Your task to perform on an android device: allow cookies in the chrome app Image 0: 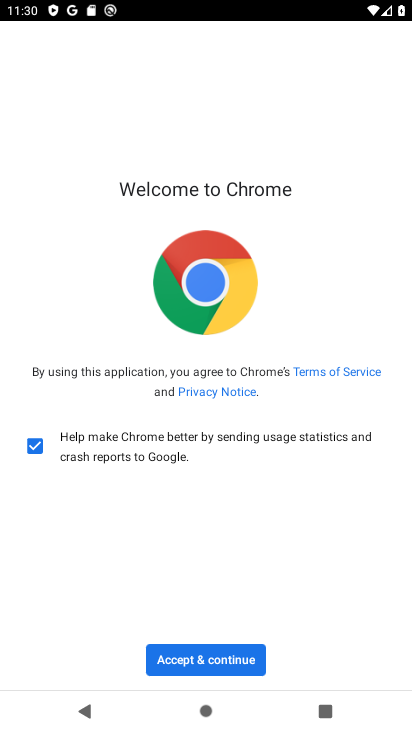
Step 0: press home button
Your task to perform on an android device: allow cookies in the chrome app Image 1: 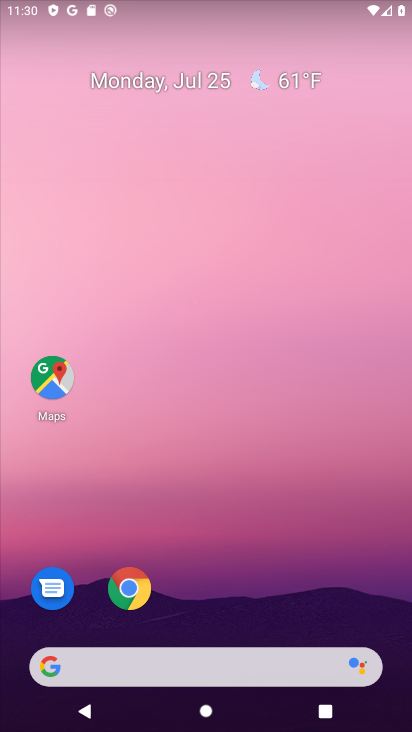
Step 1: click (127, 583)
Your task to perform on an android device: allow cookies in the chrome app Image 2: 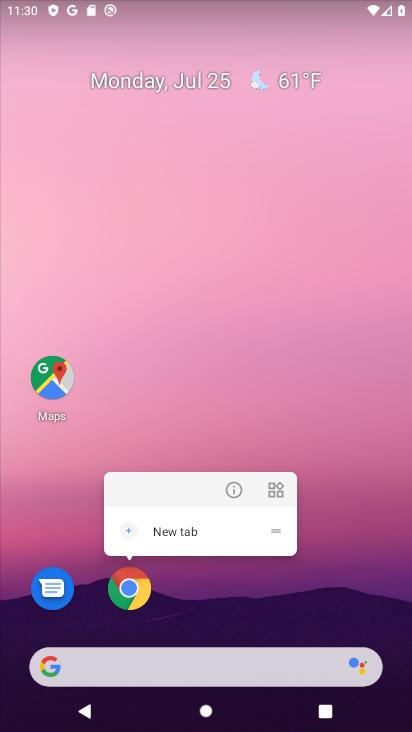
Step 2: click (126, 583)
Your task to perform on an android device: allow cookies in the chrome app Image 3: 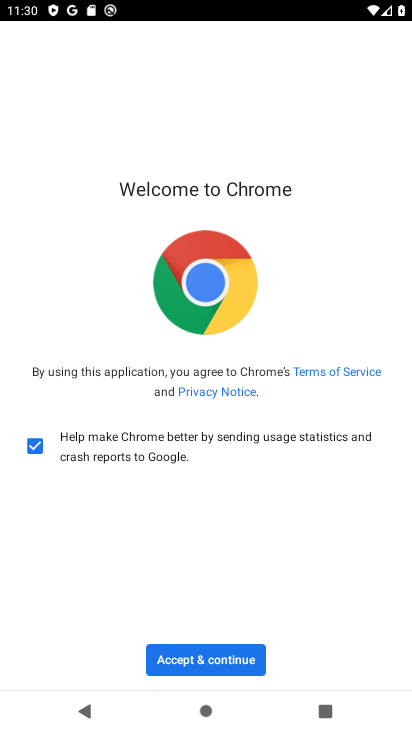
Step 3: click (198, 655)
Your task to perform on an android device: allow cookies in the chrome app Image 4: 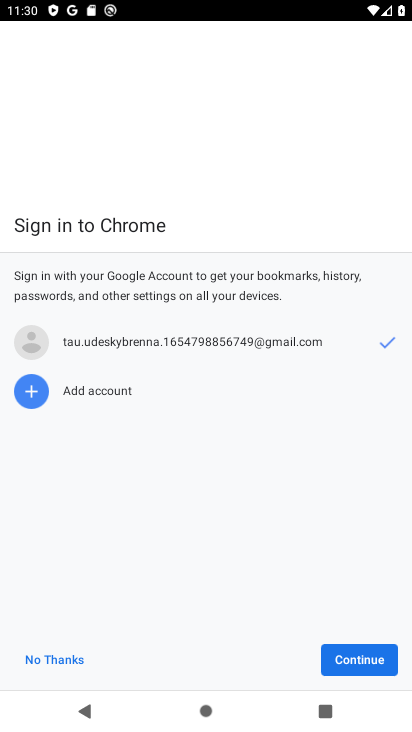
Step 4: click (365, 658)
Your task to perform on an android device: allow cookies in the chrome app Image 5: 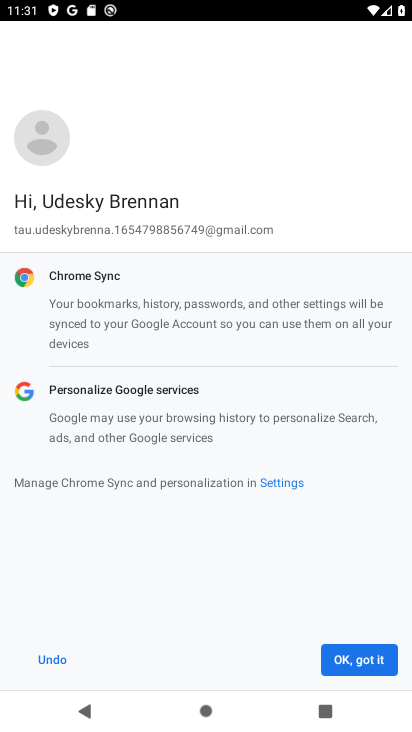
Step 5: click (359, 658)
Your task to perform on an android device: allow cookies in the chrome app Image 6: 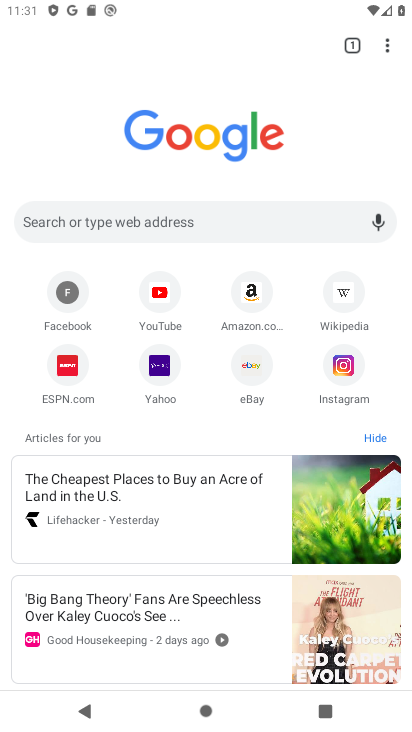
Step 6: click (384, 44)
Your task to perform on an android device: allow cookies in the chrome app Image 7: 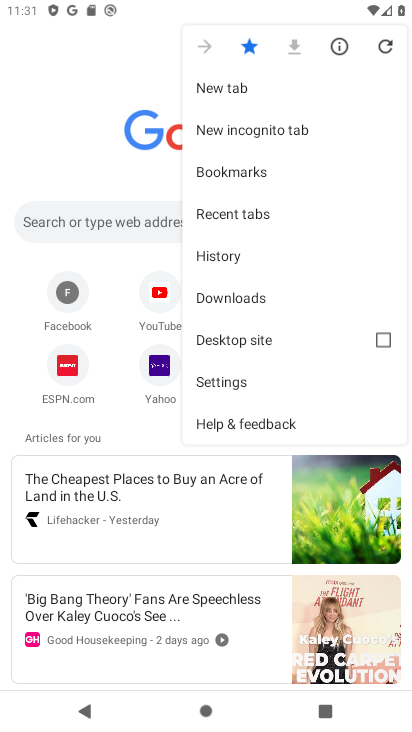
Step 7: click (253, 374)
Your task to perform on an android device: allow cookies in the chrome app Image 8: 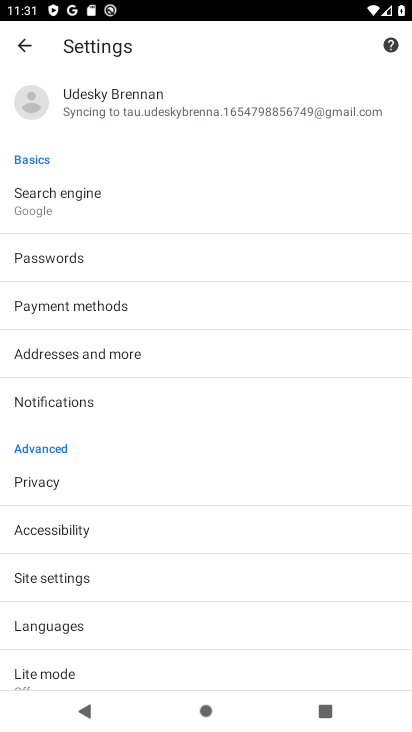
Step 8: drag from (187, 674) to (197, 109)
Your task to perform on an android device: allow cookies in the chrome app Image 9: 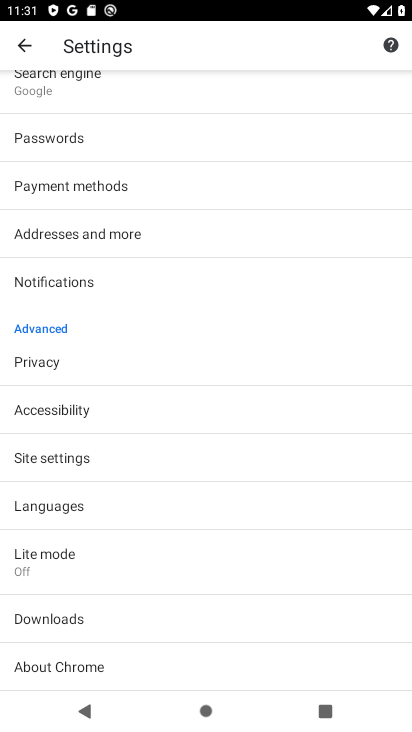
Step 9: click (98, 455)
Your task to perform on an android device: allow cookies in the chrome app Image 10: 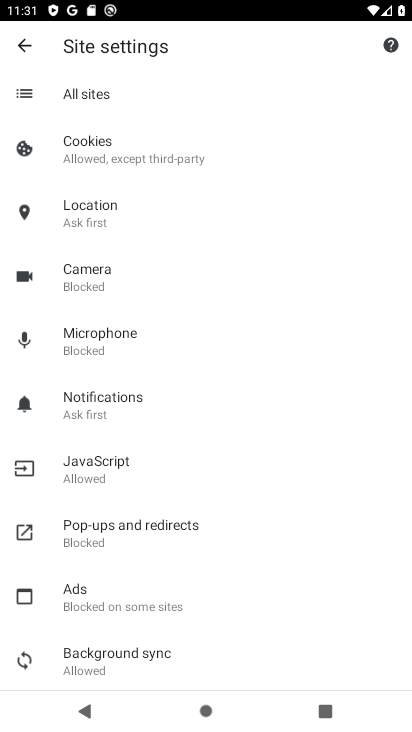
Step 10: click (129, 148)
Your task to perform on an android device: allow cookies in the chrome app Image 11: 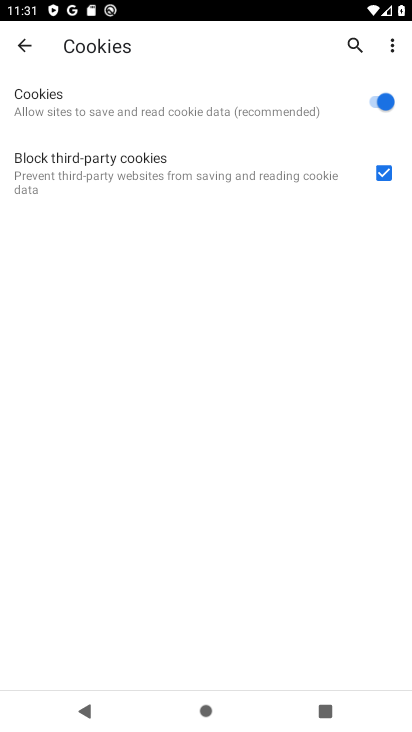
Step 11: task complete